Your task to perform on an android device: add a contact Image 0: 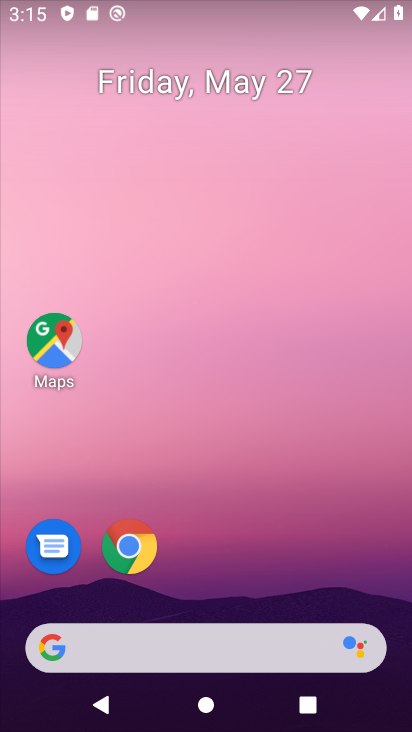
Step 0: drag from (231, 598) to (326, 137)
Your task to perform on an android device: add a contact Image 1: 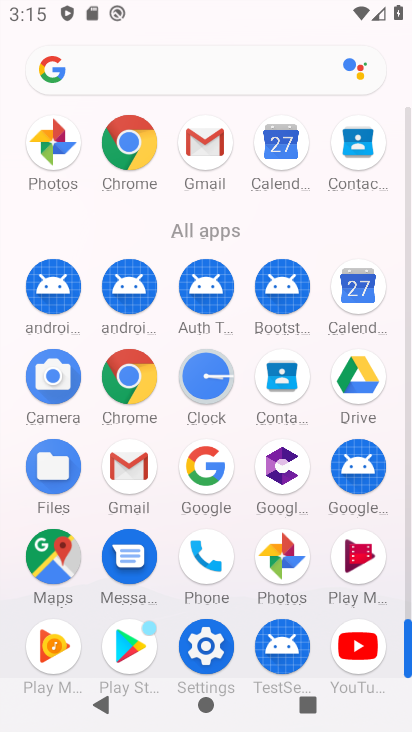
Step 1: click (264, 386)
Your task to perform on an android device: add a contact Image 2: 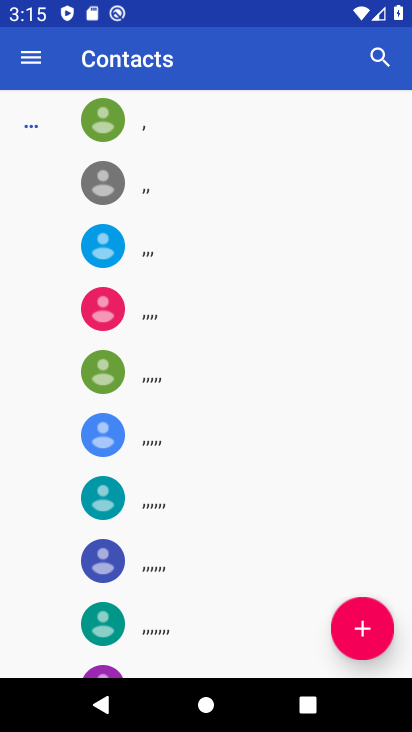
Step 2: click (361, 639)
Your task to perform on an android device: add a contact Image 3: 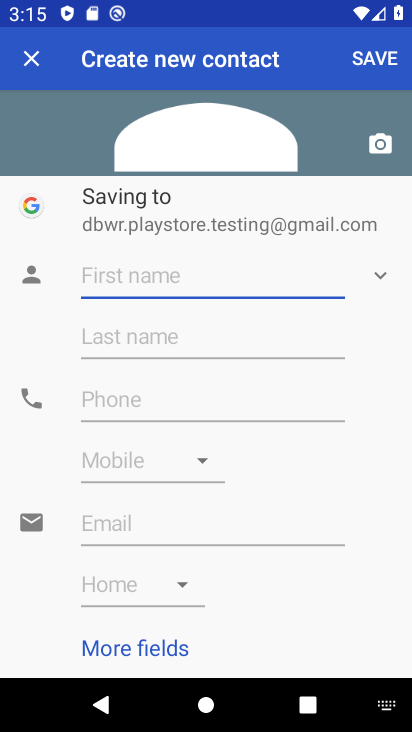
Step 3: type "gggggggg"
Your task to perform on an android device: add a contact Image 4: 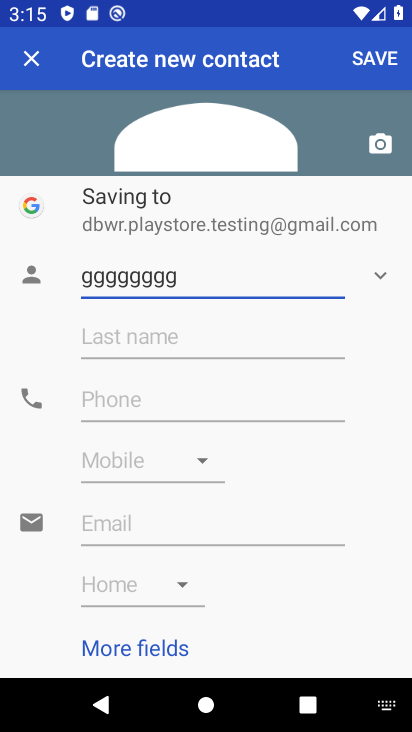
Step 4: click (158, 401)
Your task to perform on an android device: add a contact Image 5: 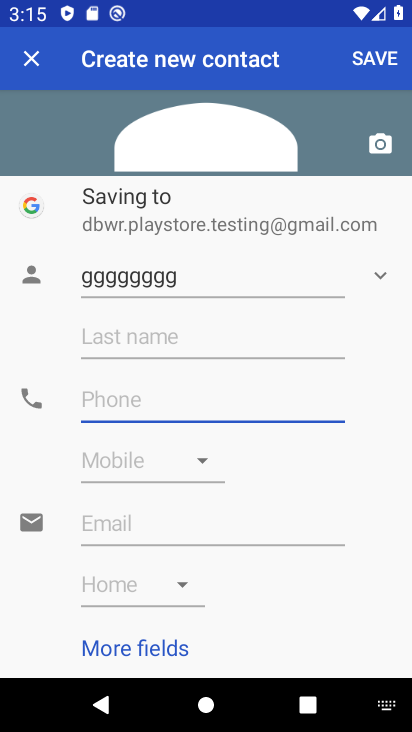
Step 5: type "255233233"
Your task to perform on an android device: add a contact Image 6: 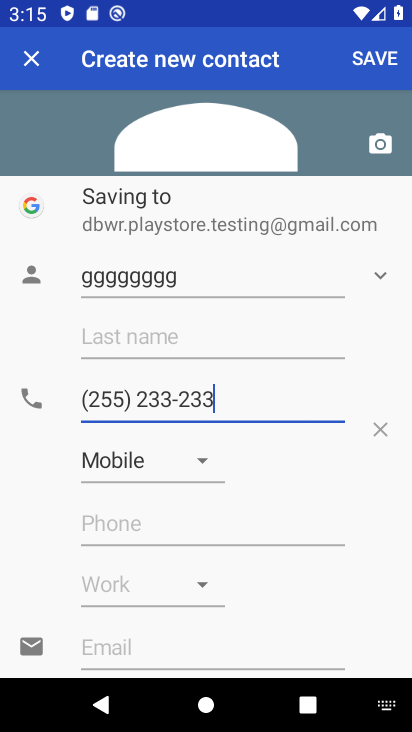
Step 6: click (397, 63)
Your task to perform on an android device: add a contact Image 7: 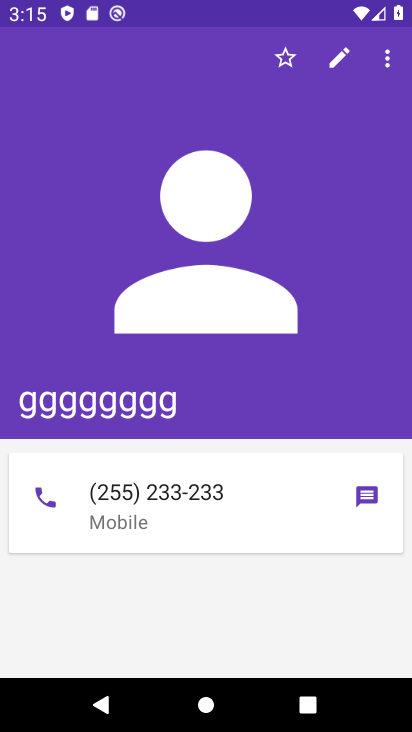
Step 7: task complete